Your task to perform on an android device: turn smart compose on in the gmail app Image 0: 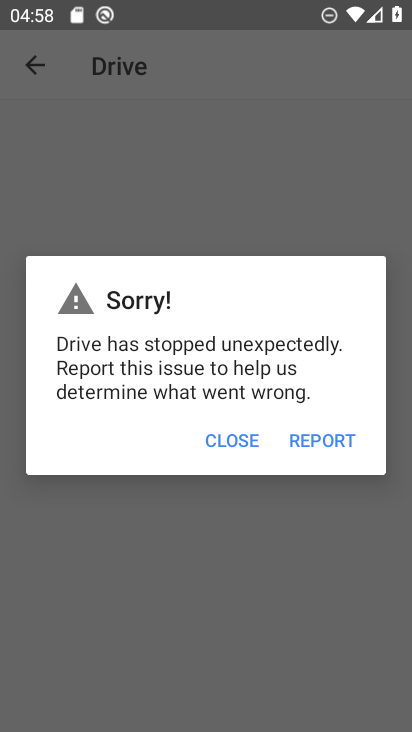
Step 0: press home button
Your task to perform on an android device: turn smart compose on in the gmail app Image 1: 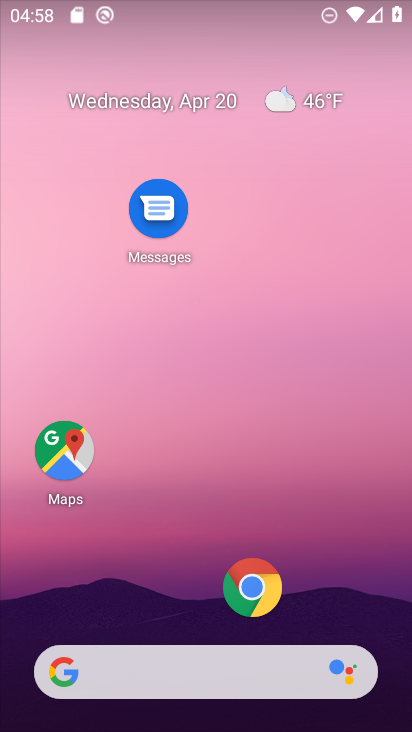
Step 1: drag from (190, 610) to (221, 144)
Your task to perform on an android device: turn smart compose on in the gmail app Image 2: 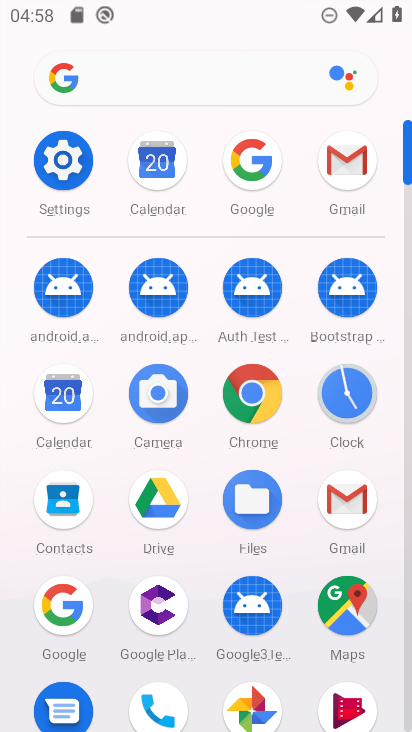
Step 2: click (349, 172)
Your task to perform on an android device: turn smart compose on in the gmail app Image 3: 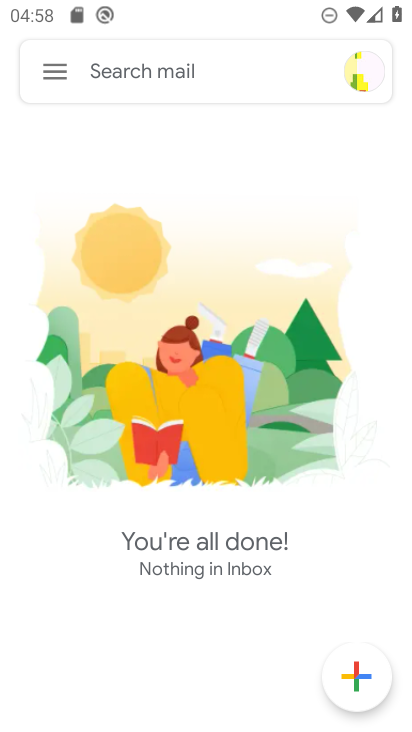
Step 3: click (48, 61)
Your task to perform on an android device: turn smart compose on in the gmail app Image 4: 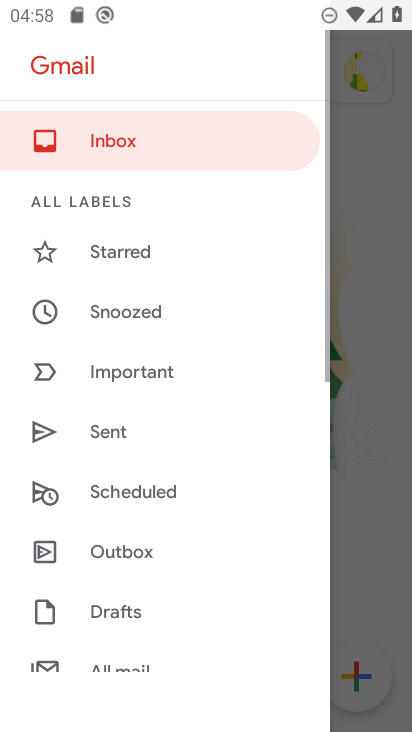
Step 4: drag from (180, 639) to (194, 204)
Your task to perform on an android device: turn smart compose on in the gmail app Image 5: 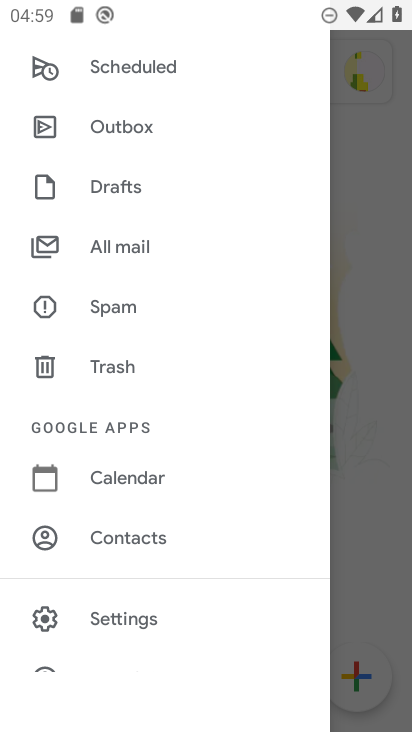
Step 5: click (120, 619)
Your task to perform on an android device: turn smart compose on in the gmail app Image 6: 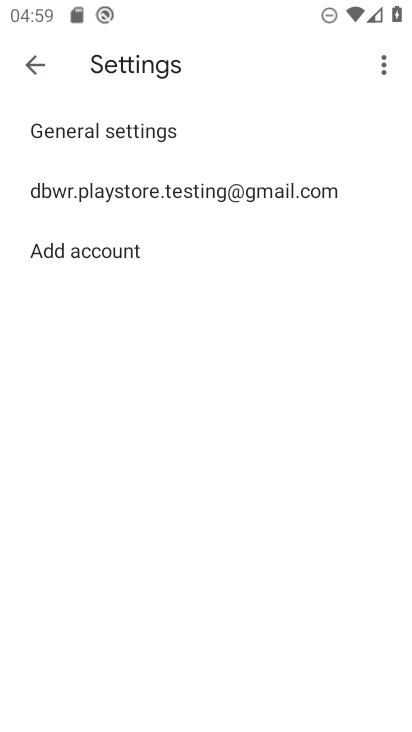
Step 6: click (225, 190)
Your task to perform on an android device: turn smart compose on in the gmail app Image 7: 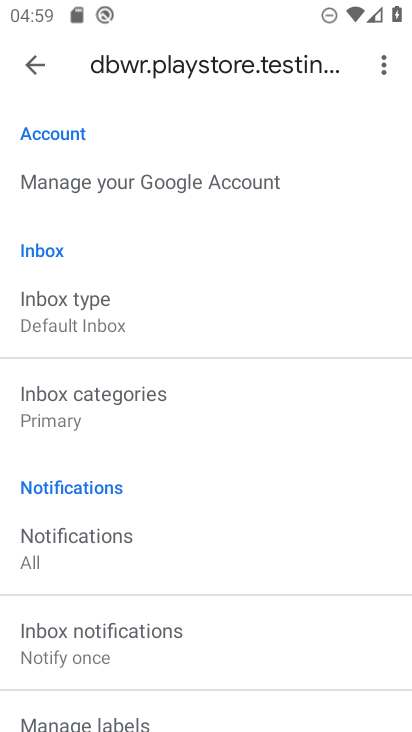
Step 7: task complete